Your task to perform on an android device: Clear the shopping cart on bestbuy. Search for "razer kraken" on bestbuy, select the first entry, and add it to the cart. Image 0: 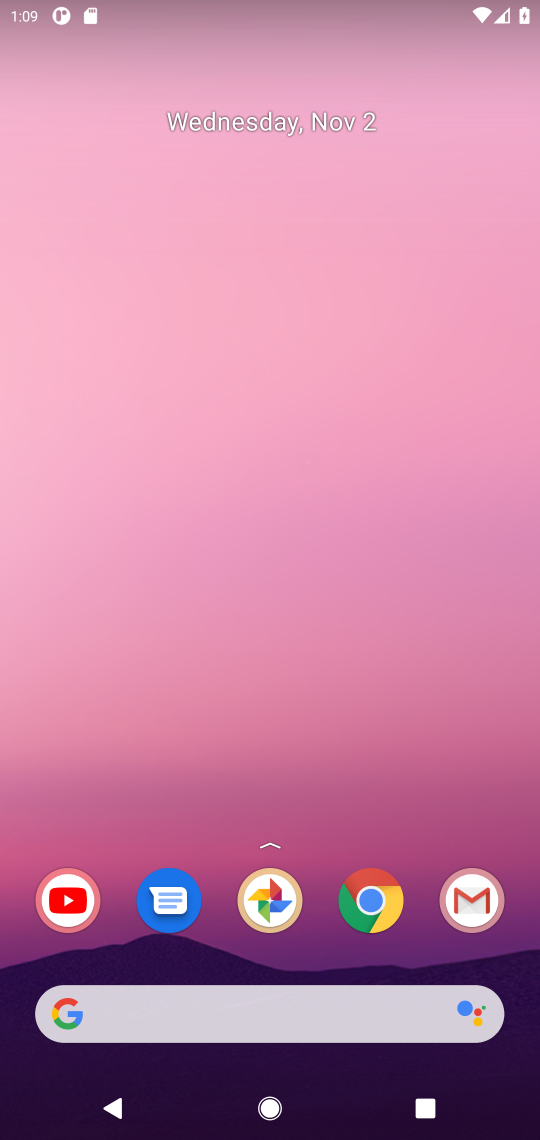
Step 0: click (391, 905)
Your task to perform on an android device: Clear the shopping cart on bestbuy. Search for "razer kraken" on bestbuy, select the first entry, and add it to the cart. Image 1: 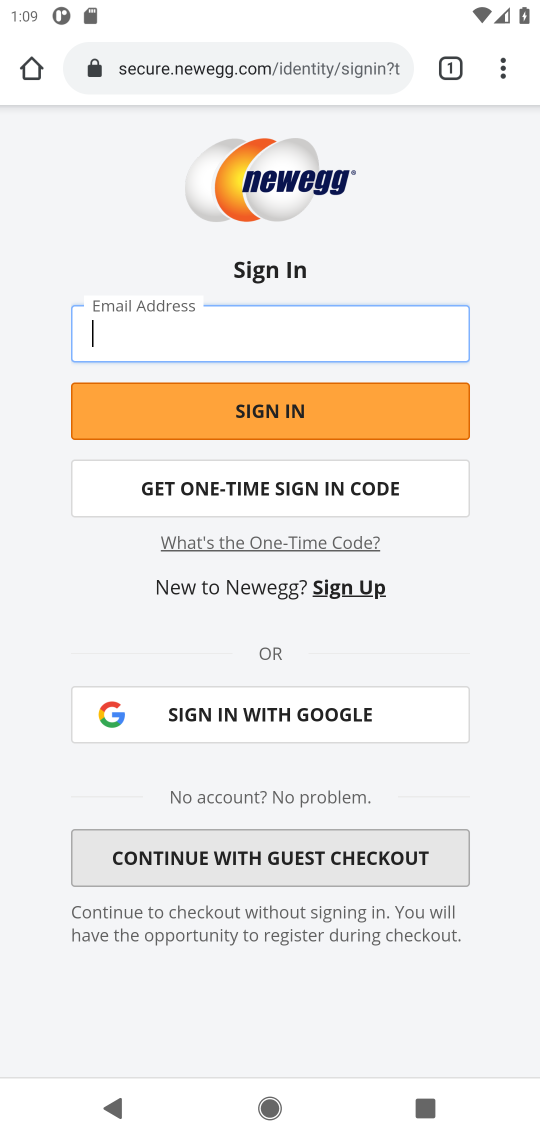
Step 1: press home button
Your task to perform on an android device: Clear the shopping cart on bestbuy. Search for "razer kraken" on bestbuy, select the first entry, and add it to the cart. Image 2: 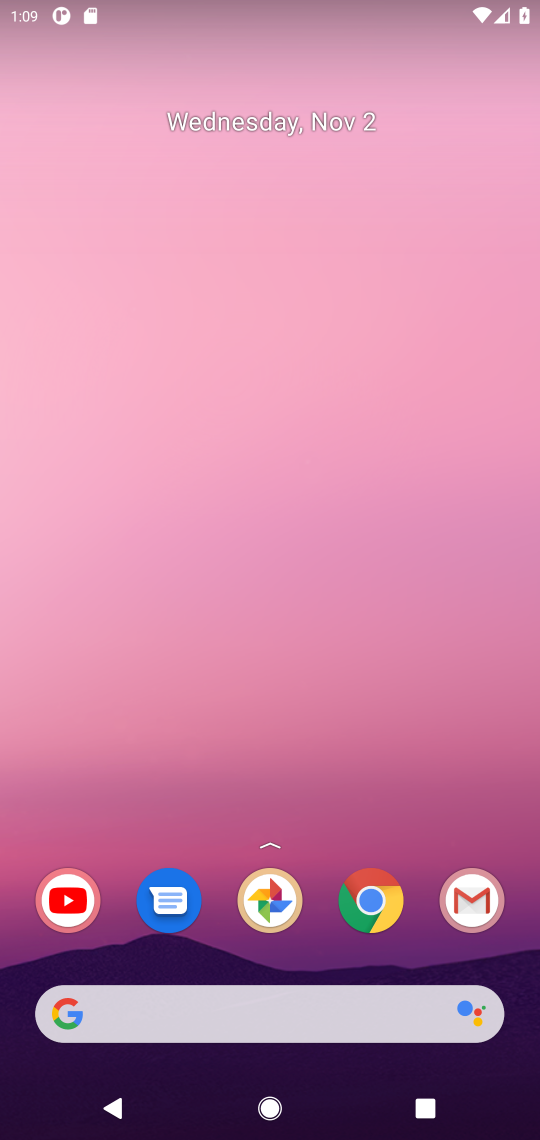
Step 2: click (366, 907)
Your task to perform on an android device: Clear the shopping cart on bestbuy. Search for "razer kraken" on bestbuy, select the first entry, and add it to the cart. Image 3: 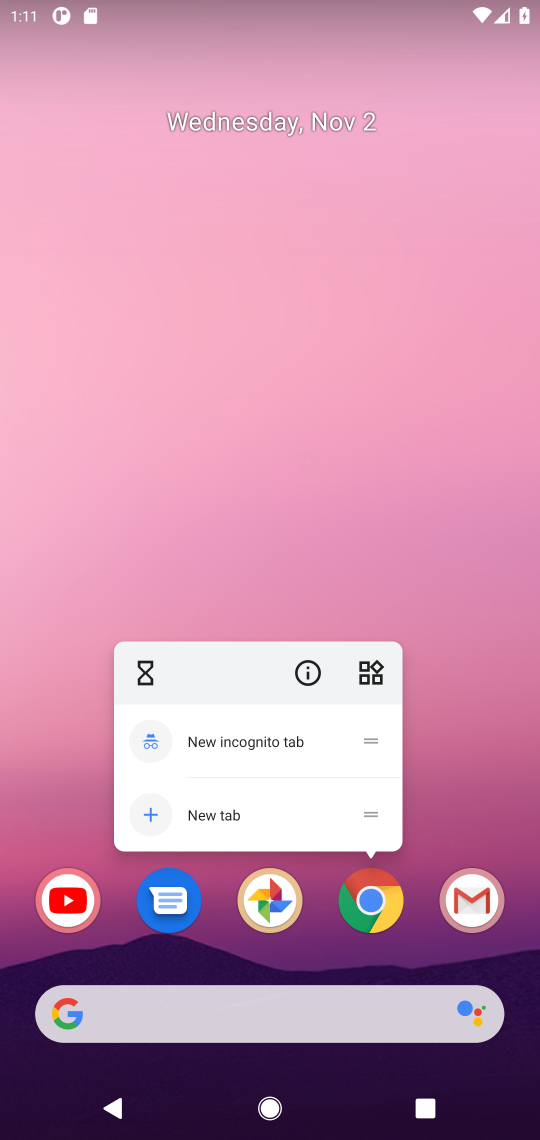
Step 3: click (379, 876)
Your task to perform on an android device: Clear the shopping cart on bestbuy. Search for "razer kraken" on bestbuy, select the first entry, and add it to the cart. Image 4: 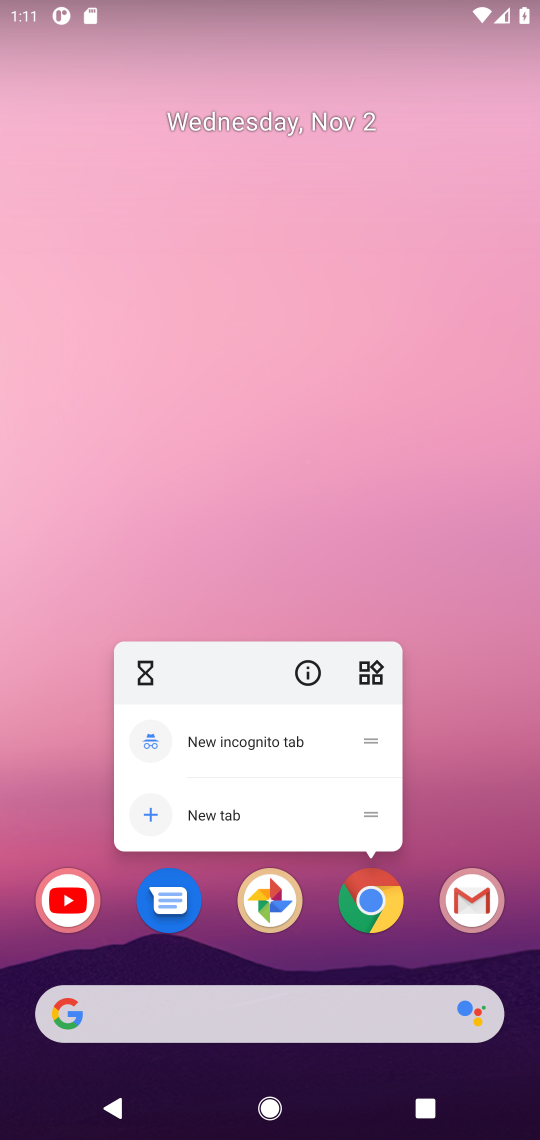
Step 4: click (376, 915)
Your task to perform on an android device: Clear the shopping cart on bestbuy. Search for "razer kraken" on bestbuy, select the first entry, and add it to the cart. Image 5: 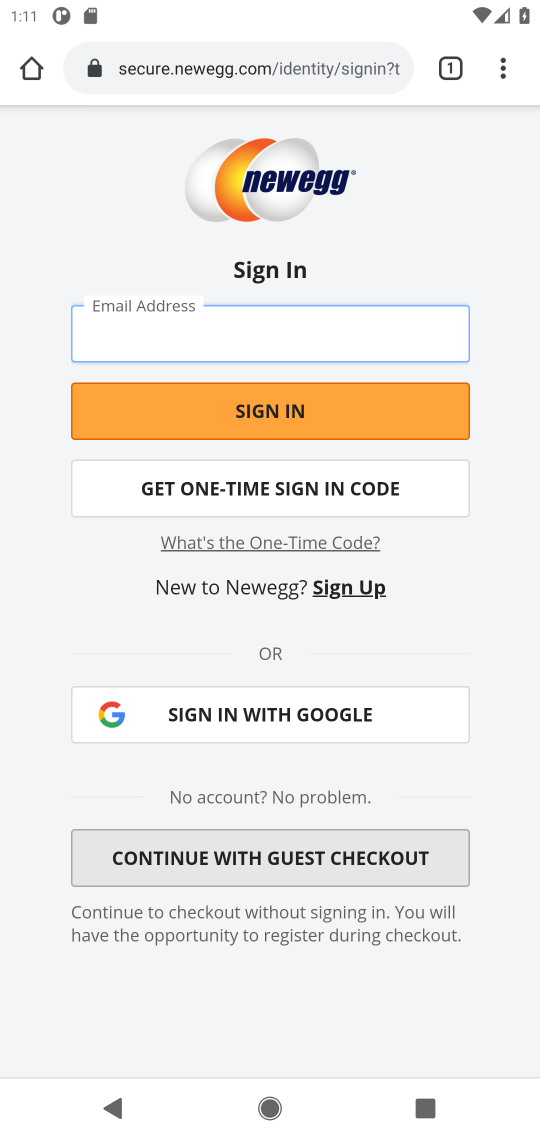
Step 5: click (203, 69)
Your task to perform on an android device: Clear the shopping cart on bestbuy. Search for "razer kraken" on bestbuy, select the first entry, and add it to the cart. Image 6: 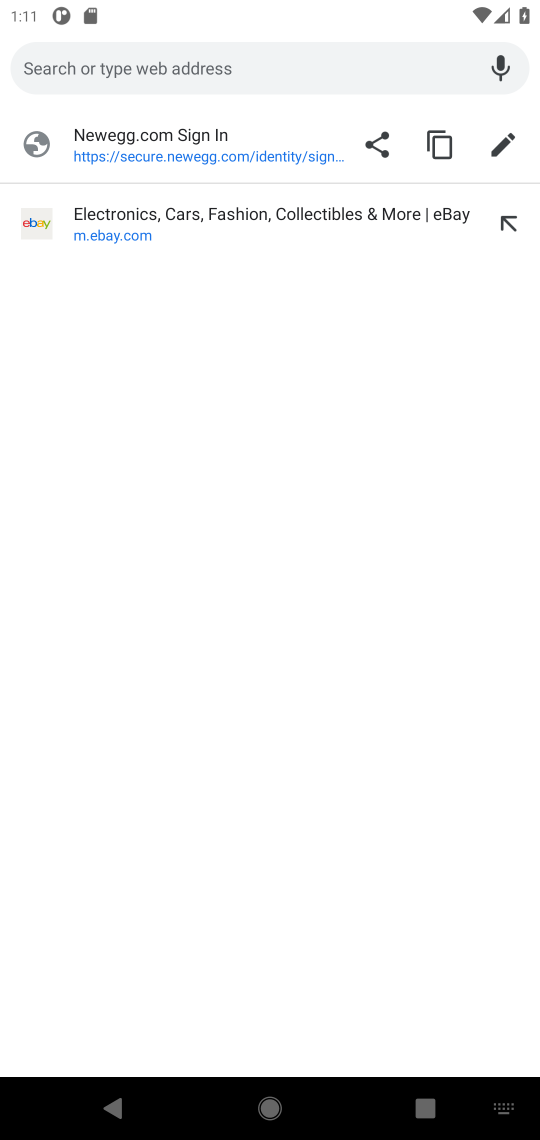
Step 6: type "bestbuy"
Your task to perform on an android device: Clear the shopping cart on bestbuy. Search for "razer kraken" on bestbuy, select the first entry, and add it to the cart. Image 7: 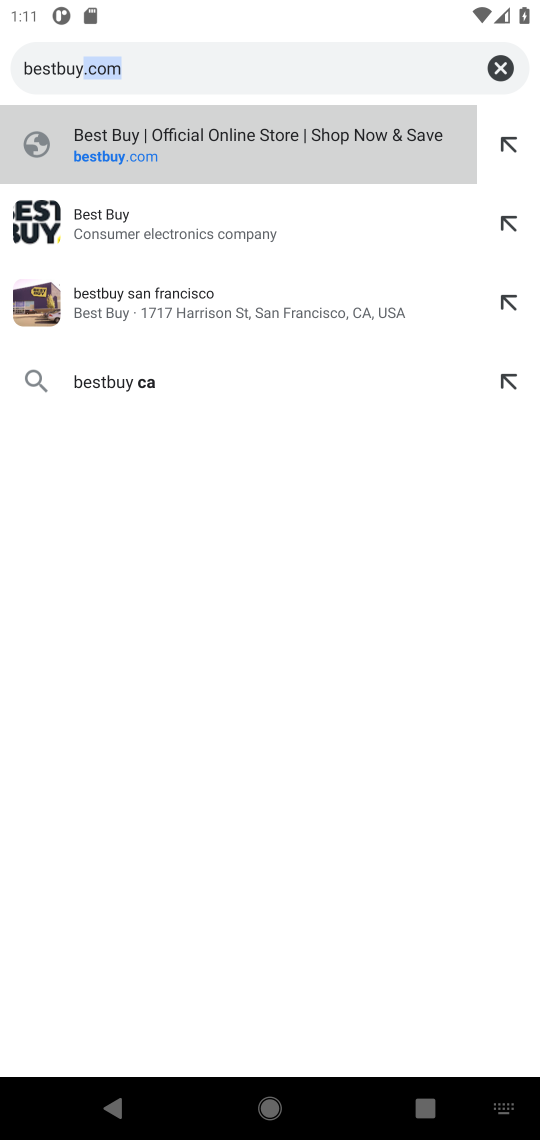
Step 7: click (118, 228)
Your task to perform on an android device: Clear the shopping cart on bestbuy. Search for "razer kraken" on bestbuy, select the first entry, and add it to the cart. Image 8: 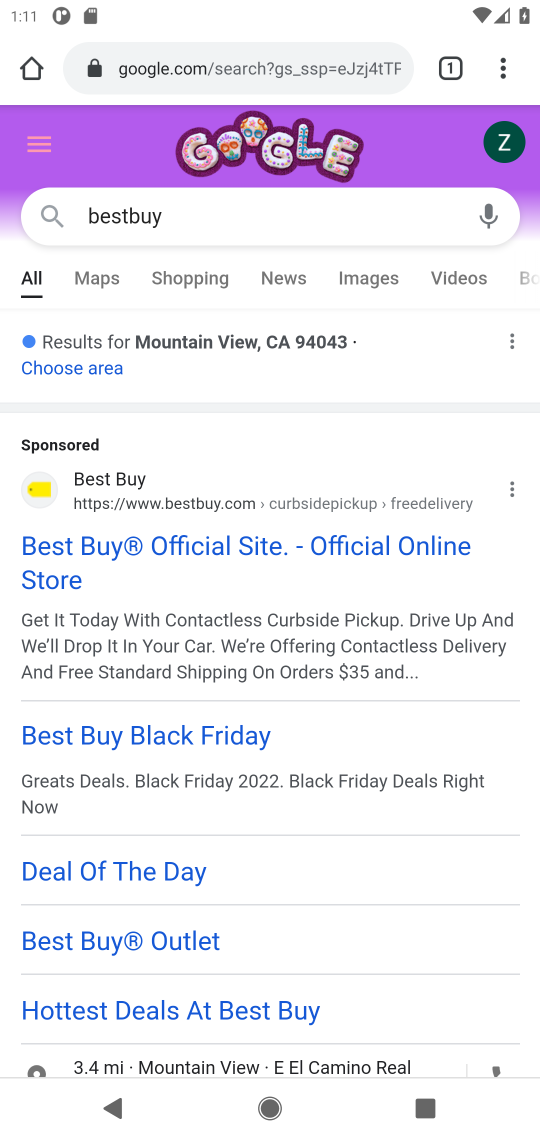
Step 8: drag from (167, 864) to (258, 368)
Your task to perform on an android device: Clear the shopping cart on bestbuy. Search for "razer kraken" on bestbuy, select the first entry, and add it to the cart. Image 9: 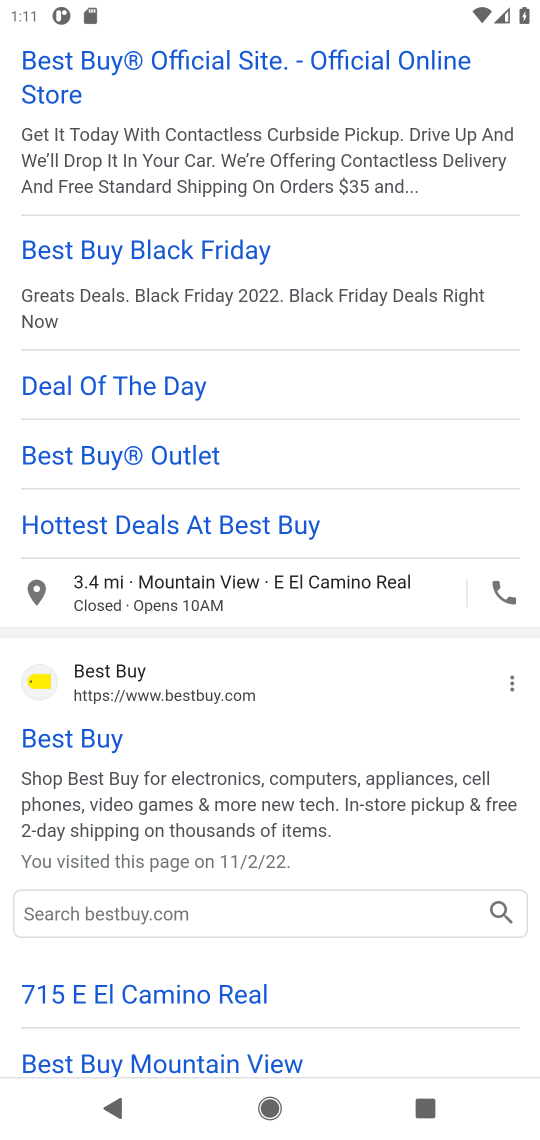
Step 9: click (69, 740)
Your task to perform on an android device: Clear the shopping cart on bestbuy. Search for "razer kraken" on bestbuy, select the first entry, and add it to the cart. Image 10: 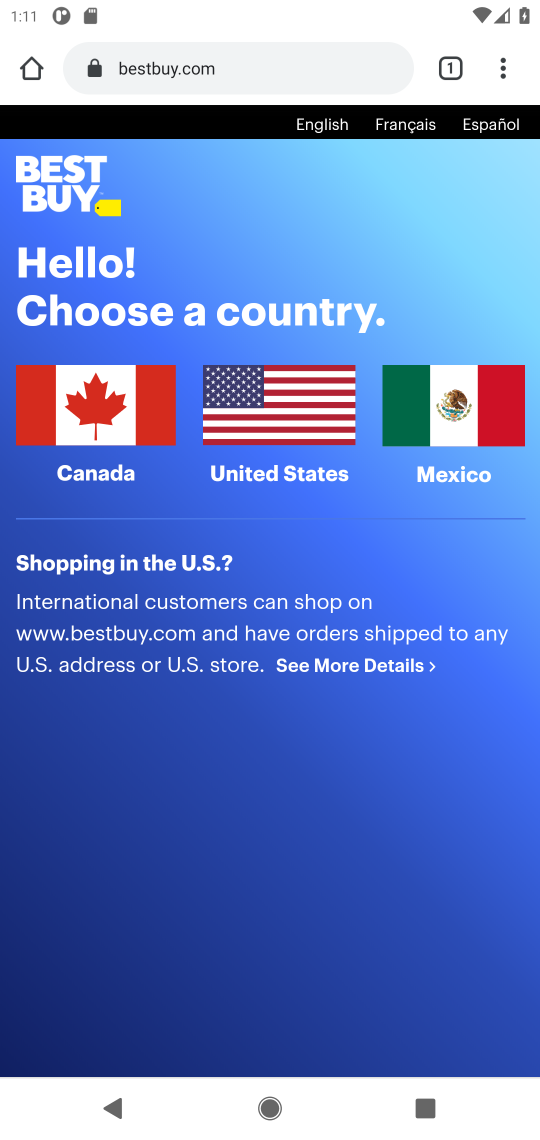
Step 10: click (252, 433)
Your task to perform on an android device: Clear the shopping cart on bestbuy. Search for "razer kraken" on bestbuy, select the first entry, and add it to the cart. Image 11: 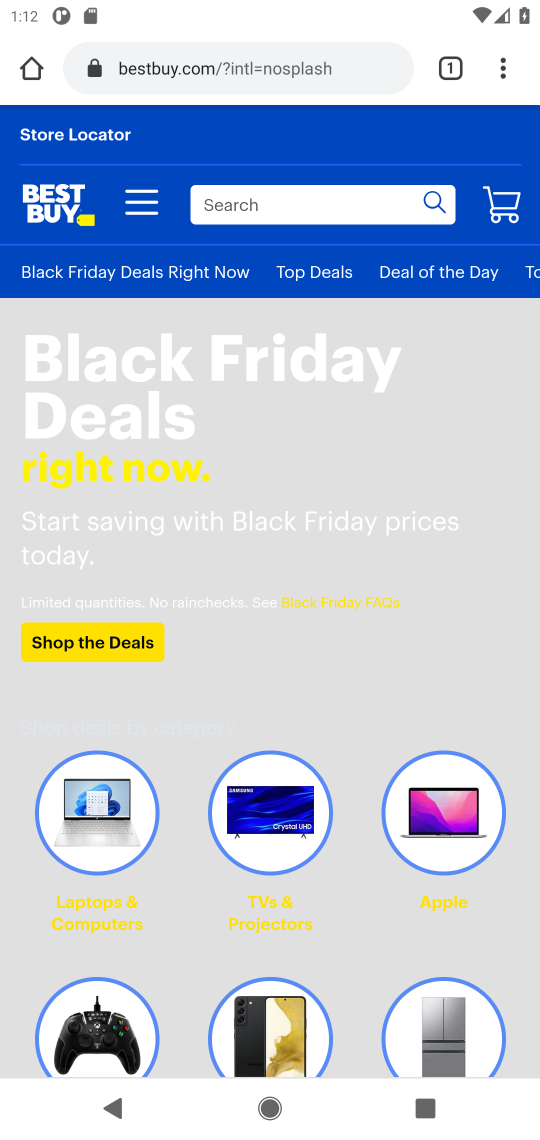
Step 11: click (285, 204)
Your task to perform on an android device: Clear the shopping cart on bestbuy. Search for "razer kraken" on bestbuy, select the first entry, and add it to the cart. Image 12: 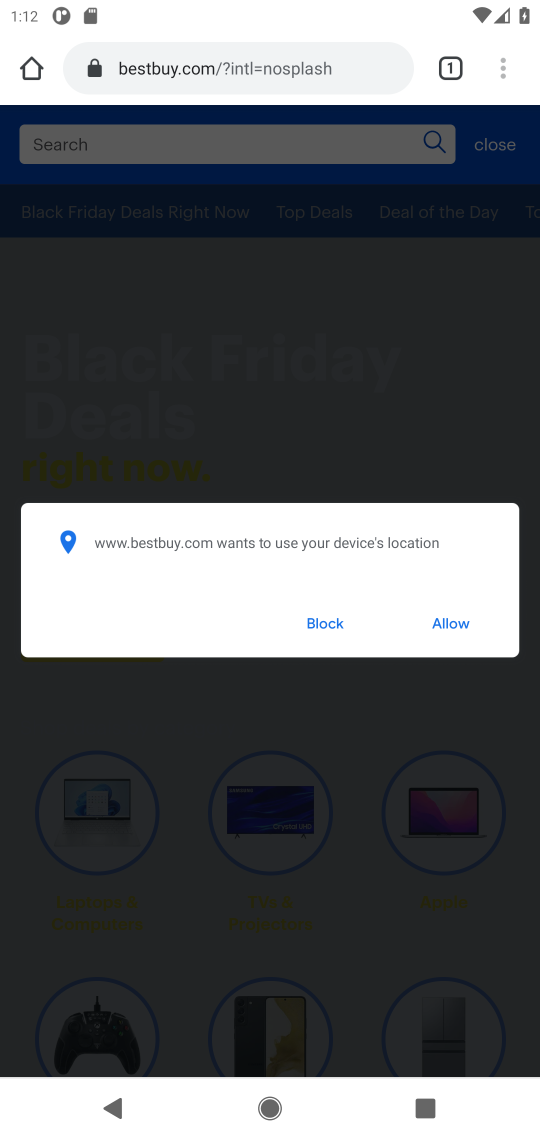
Step 12: type "razer kraken"
Your task to perform on an android device: Clear the shopping cart on bestbuy. Search for "razer kraken" on bestbuy, select the first entry, and add it to the cart. Image 13: 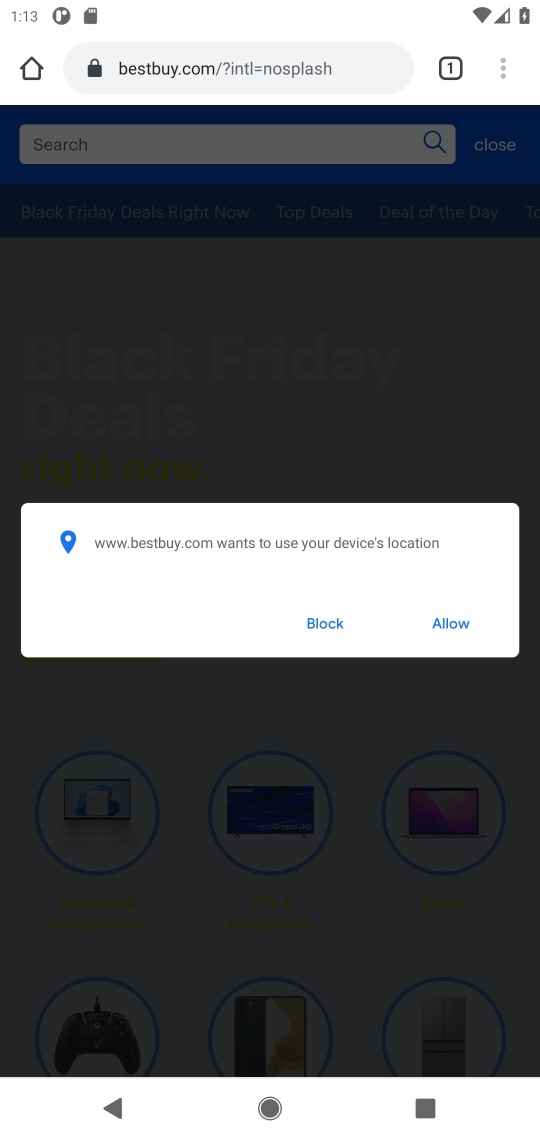
Step 13: click (474, 622)
Your task to perform on an android device: Clear the shopping cart on bestbuy. Search for "razer kraken" on bestbuy, select the first entry, and add it to the cart. Image 14: 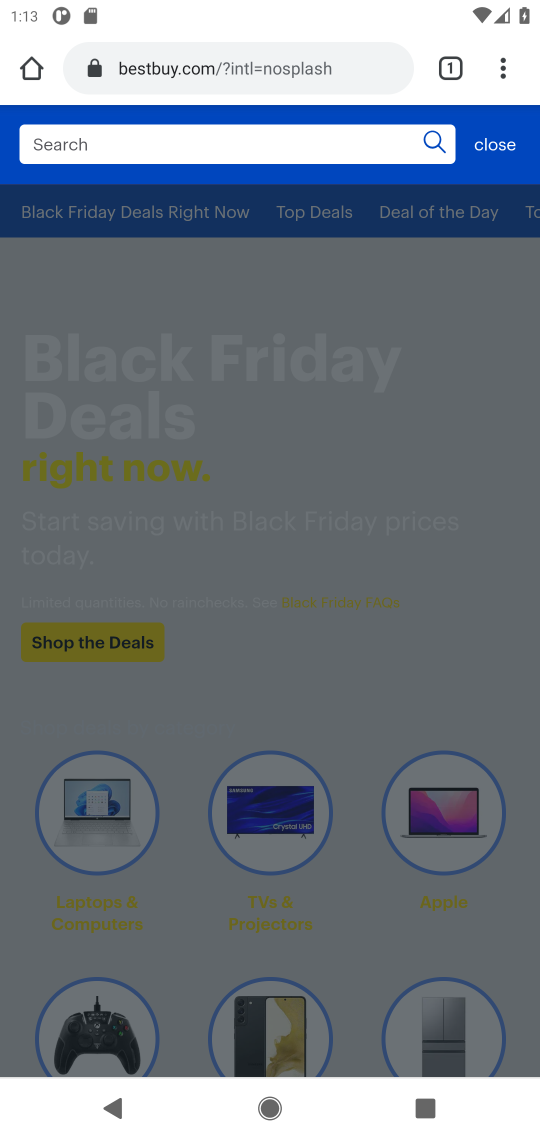
Step 14: click (80, 148)
Your task to perform on an android device: Clear the shopping cart on bestbuy. Search for "razer kraken" on bestbuy, select the first entry, and add it to the cart. Image 15: 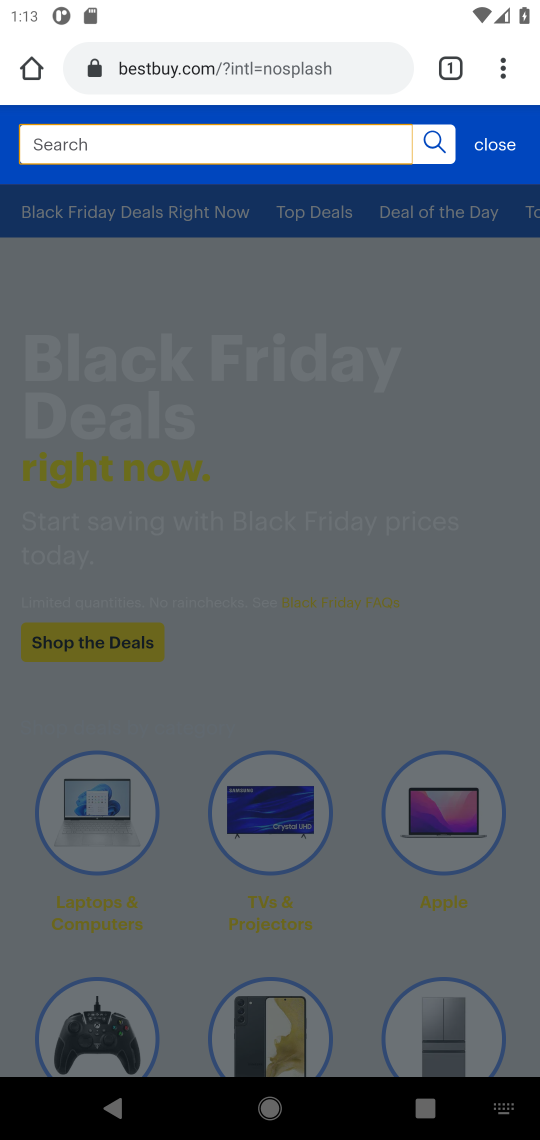
Step 15: type "razer kraken"
Your task to perform on an android device: Clear the shopping cart on bestbuy. Search for "razer kraken" on bestbuy, select the first entry, and add it to the cart. Image 16: 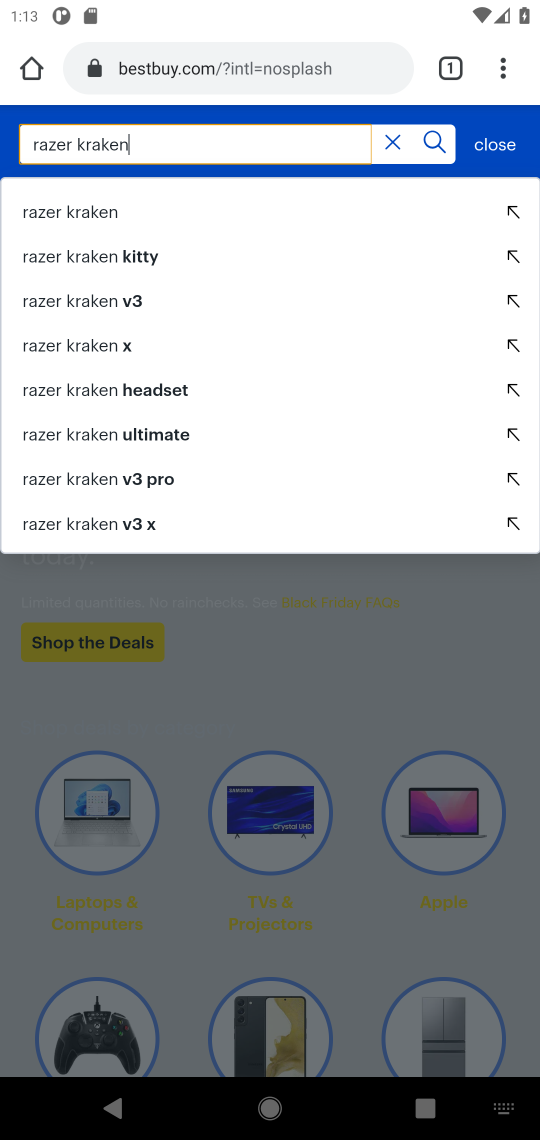
Step 16: click (104, 208)
Your task to perform on an android device: Clear the shopping cart on bestbuy. Search for "razer kraken" on bestbuy, select the first entry, and add it to the cart. Image 17: 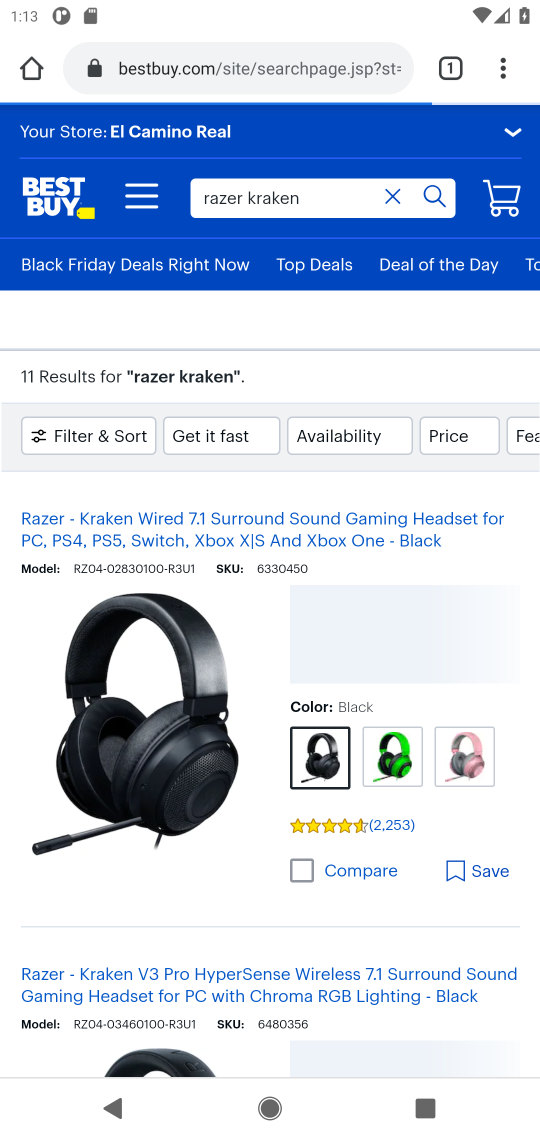
Step 17: click (237, 418)
Your task to perform on an android device: Clear the shopping cart on bestbuy. Search for "razer kraken" on bestbuy, select the first entry, and add it to the cart. Image 18: 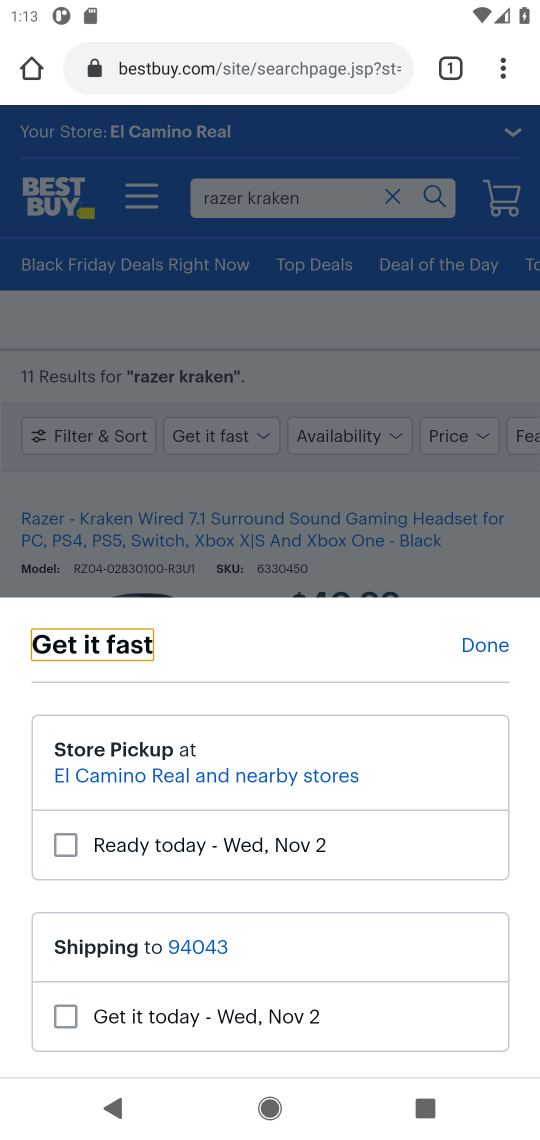
Step 18: click (474, 641)
Your task to perform on an android device: Clear the shopping cart on bestbuy. Search for "razer kraken" on bestbuy, select the first entry, and add it to the cart. Image 19: 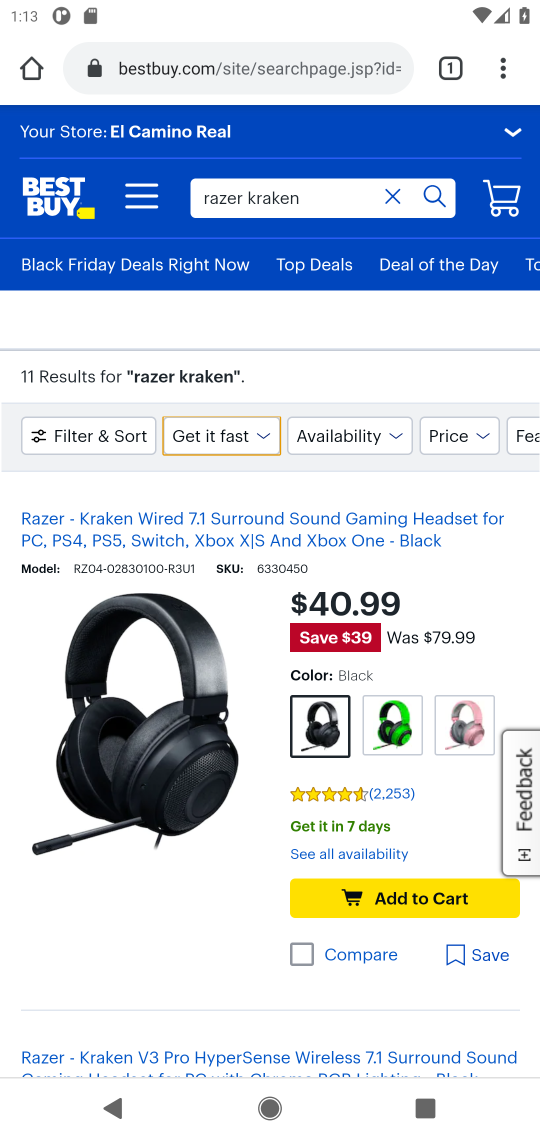
Step 19: click (179, 735)
Your task to perform on an android device: Clear the shopping cart on bestbuy. Search for "razer kraken" on bestbuy, select the first entry, and add it to the cart. Image 20: 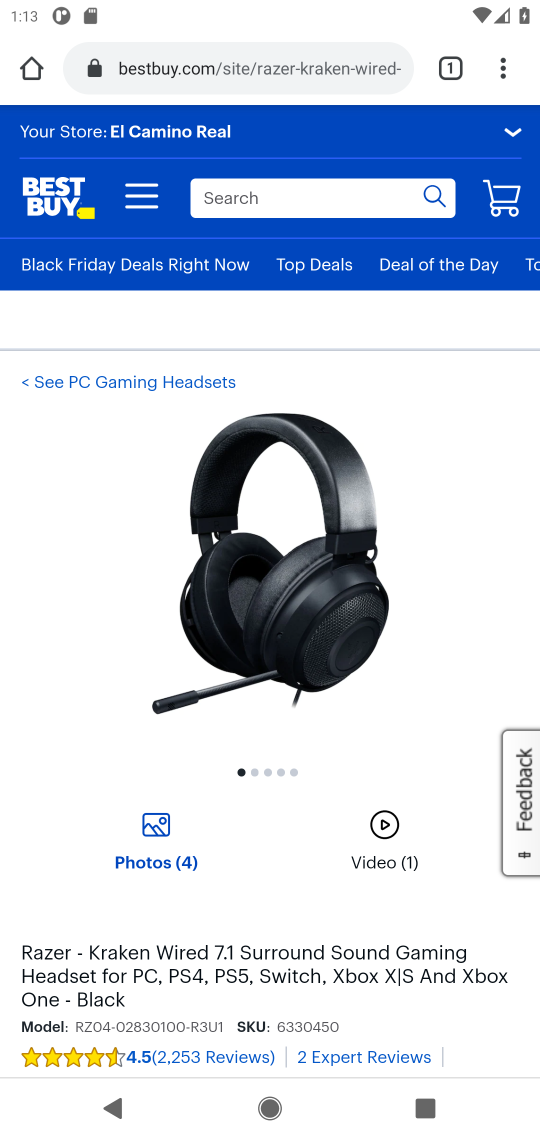
Step 20: drag from (153, 890) to (217, 555)
Your task to perform on an android device: Clear the shopping cart on bestbuy. Search for "razer kraken" on bestbuy, select the first entry, and add it to the cart. Image 21: 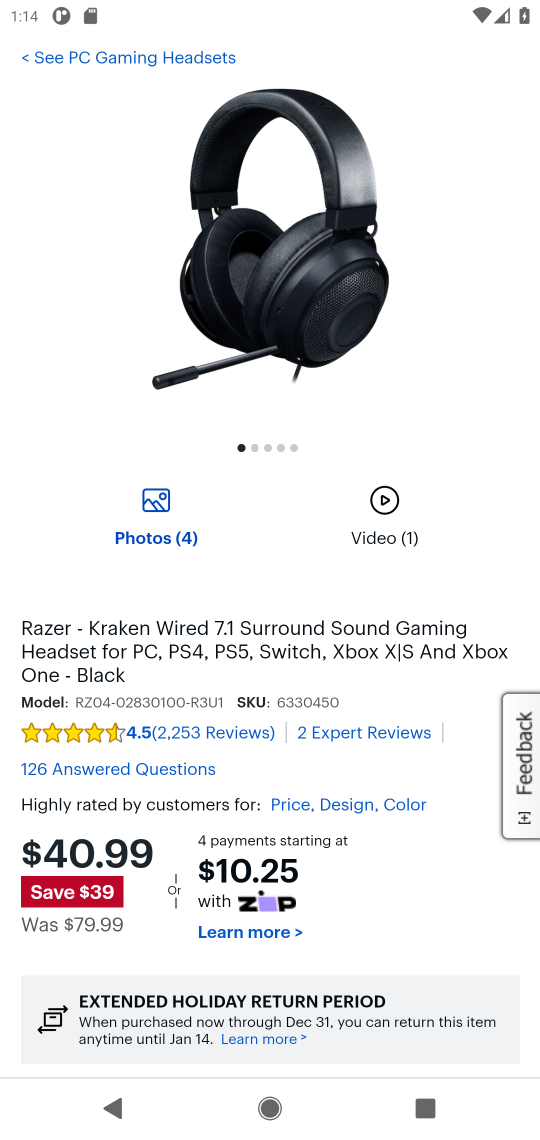
Step 21: drag from (244, 800) to (396, 169)
Your task to perform on an android device: Clear the shopping cart on bestbuy. Search for "razer kraken" on bestbuy, select the first entry, and add it to the cart. Image 22: 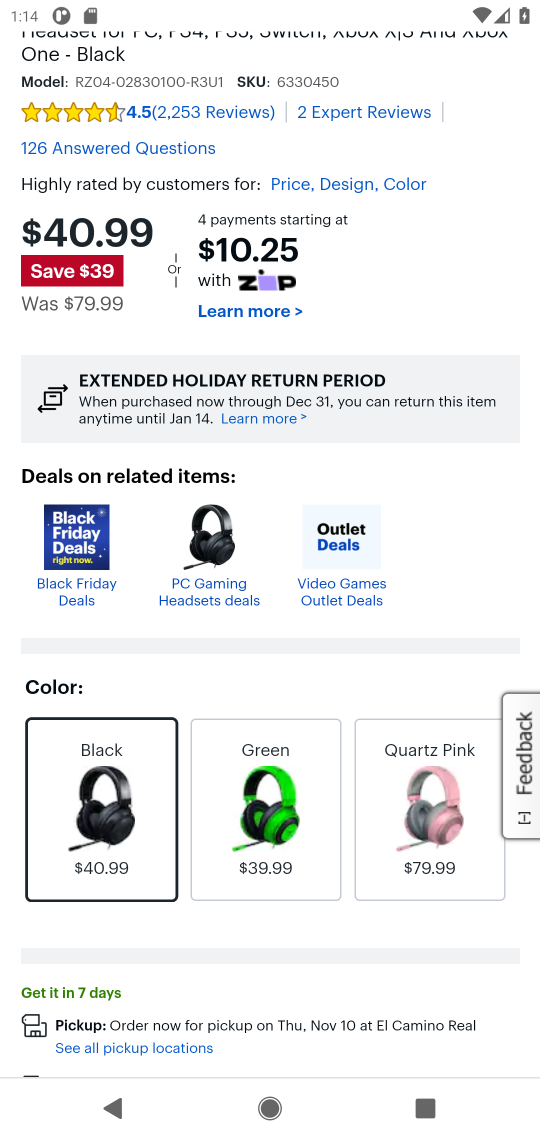
Step 22: drag from (280, 706) to (294, 113)
Your task to perform on an android device: Clear the shopping cart on bestbuy. Search for "razer kraken" on bestbuy, select the first entry, and add it to the cart. Image 23: 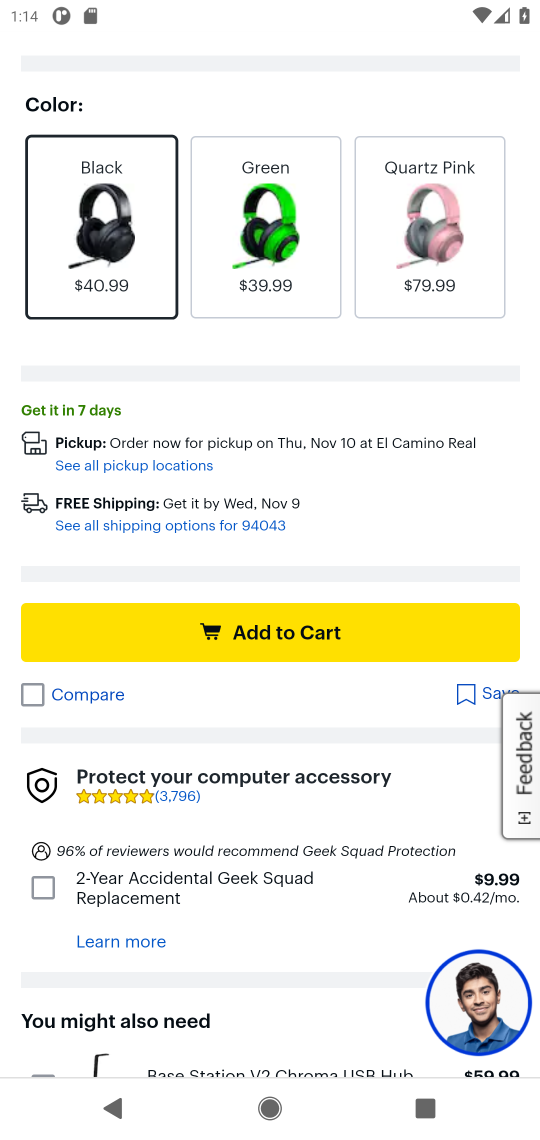
Step 23: click (284, 628)
Your task to perform on an android device: Clear the shopping cart on bestbuy. Search for "razer kraken" on bestbuy, select the first entry, and add it to the cart. Image 24: 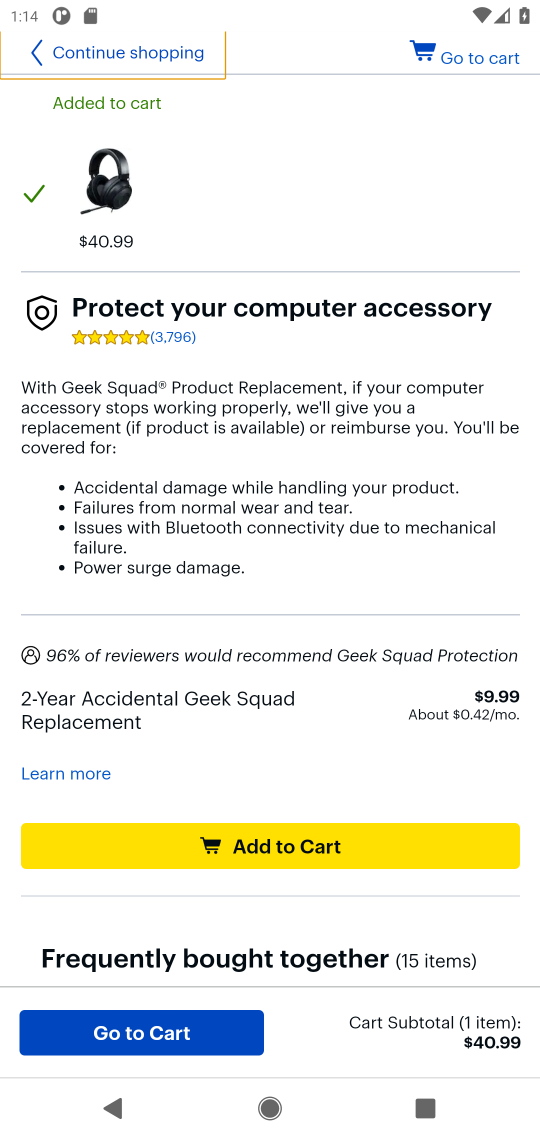
Step 24: click (250, 841)
Your task to perform on an android device: Clear the shopping cart on bestbuy. Search for "razer kraken" on bestbuy, select the first entry, and add it to the cart. Image 25: 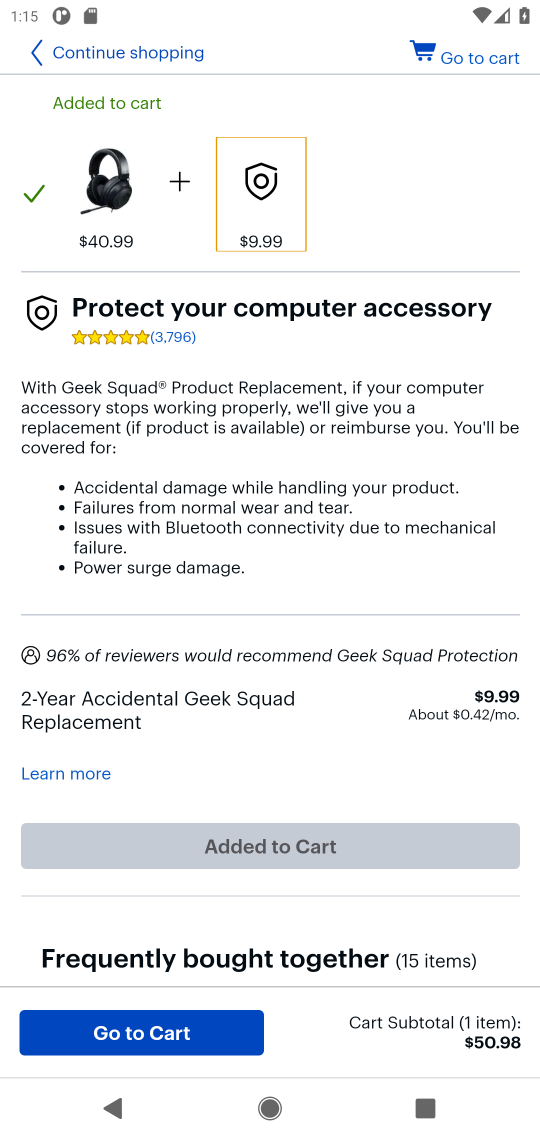
Step 25: click (119, 1035)
Your task to perform on an android device: Clear the shopping cart on bestbuy. Search for "razer kraken" on bestbuy, select the first entry, and add it to the cart. Image 26: 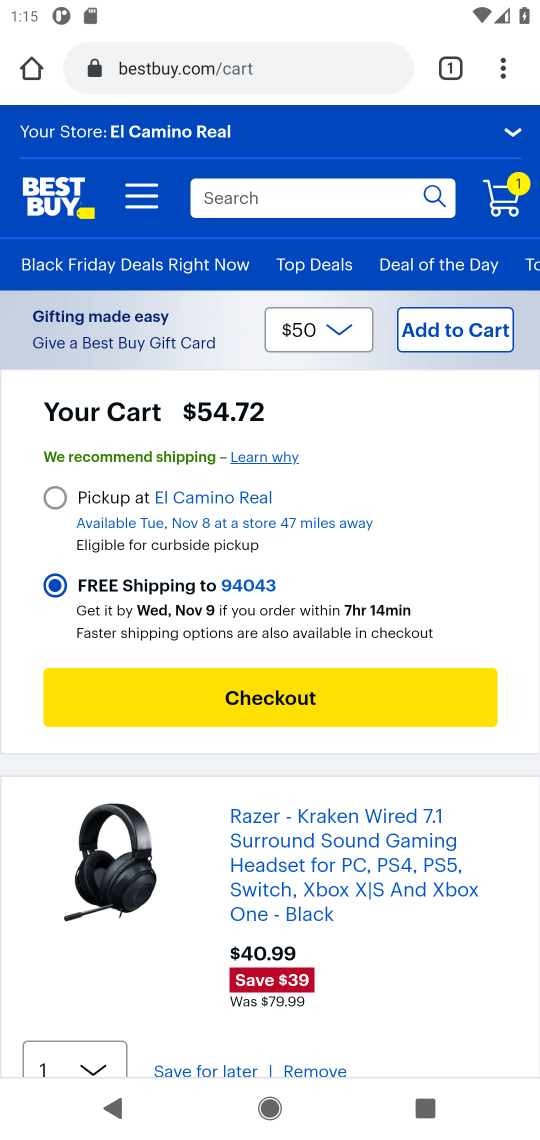
Step 26: task complete